Your task to perform on an android device: Open settings Image 0: 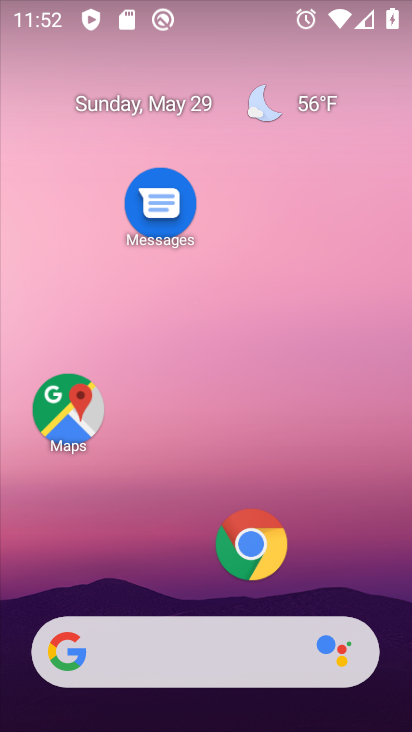
Step 0: press home button
Your task to perform on an android device: Open settings Image 1: 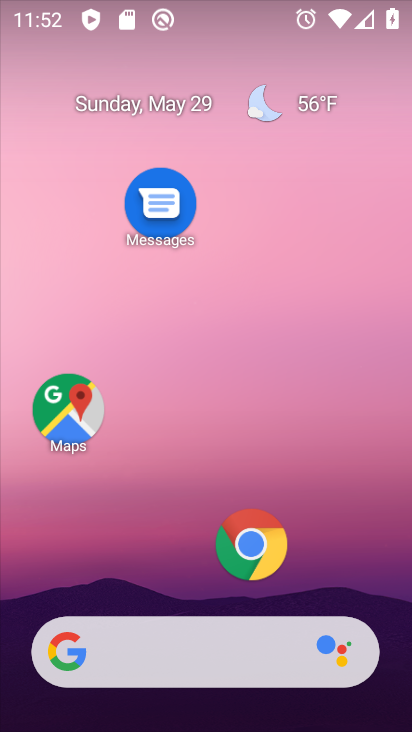
Step 1: drag from (204, 516) to (240, 58)
Your task to perform on an android device: Open settings Image 2: 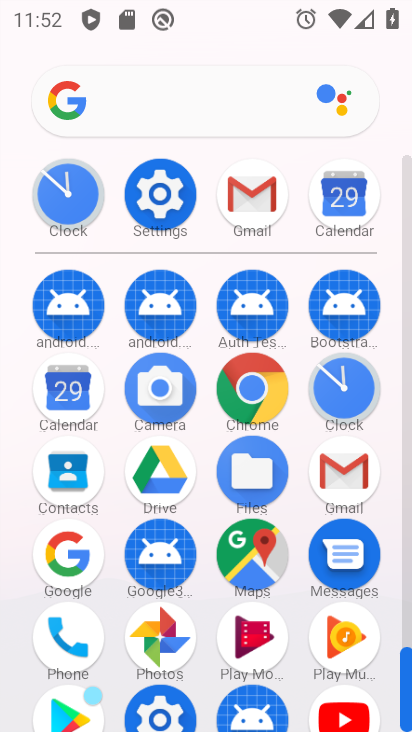
Step 2: click (154, 191)
Your task to perform on an android device: Open settings Image 3: 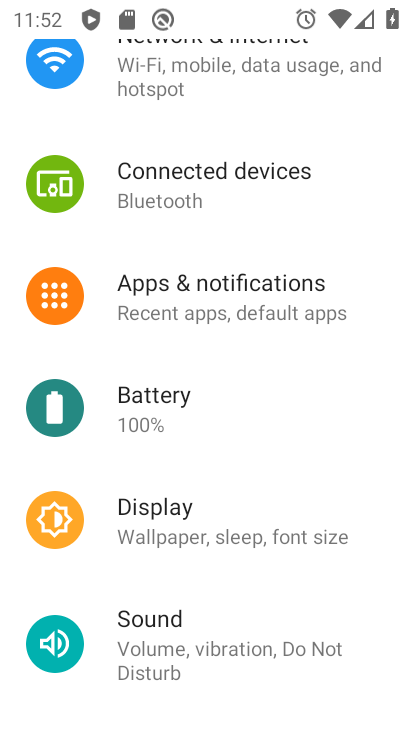
Step 3: task complete